Your task to perform on an android device: Open Wikipedia Image 0: 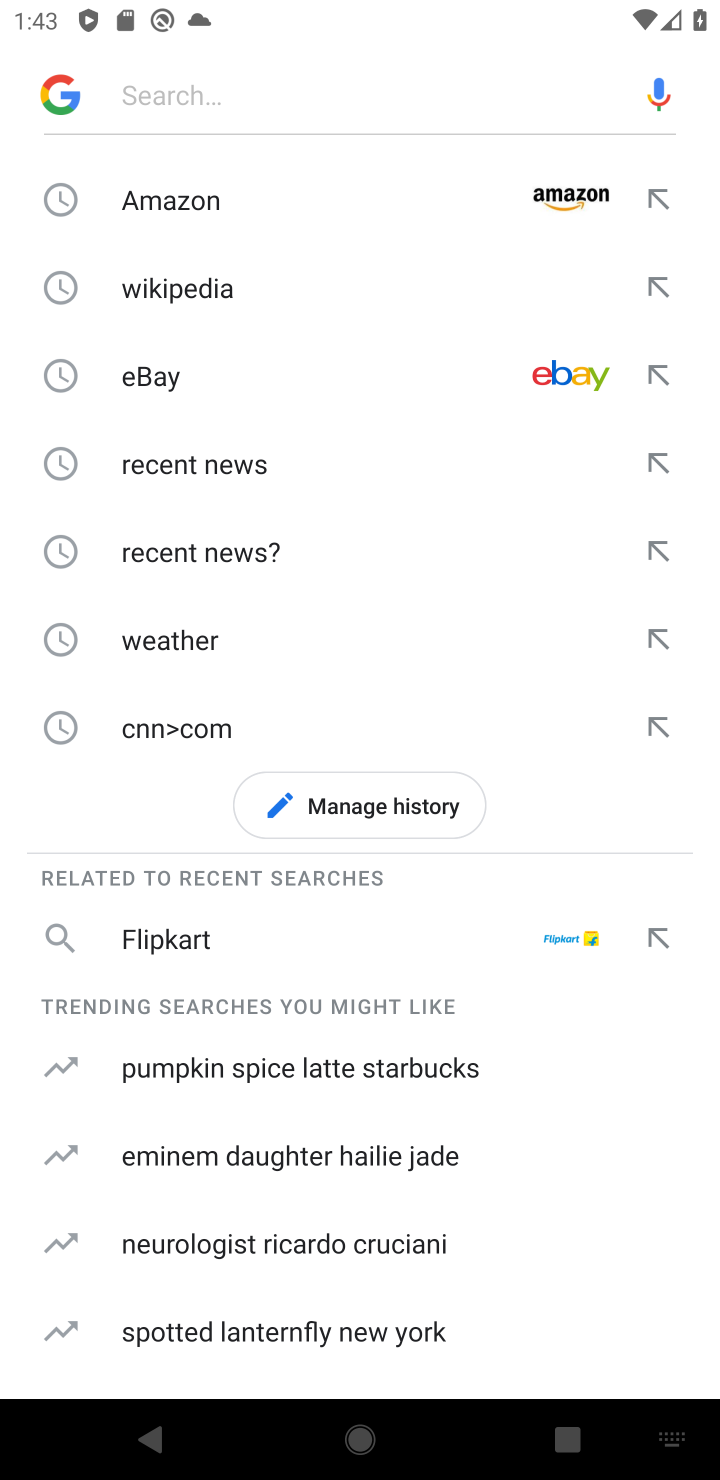
Step 0: press home button
Your task to perform on an android device: Open Wikipedia Image 1: 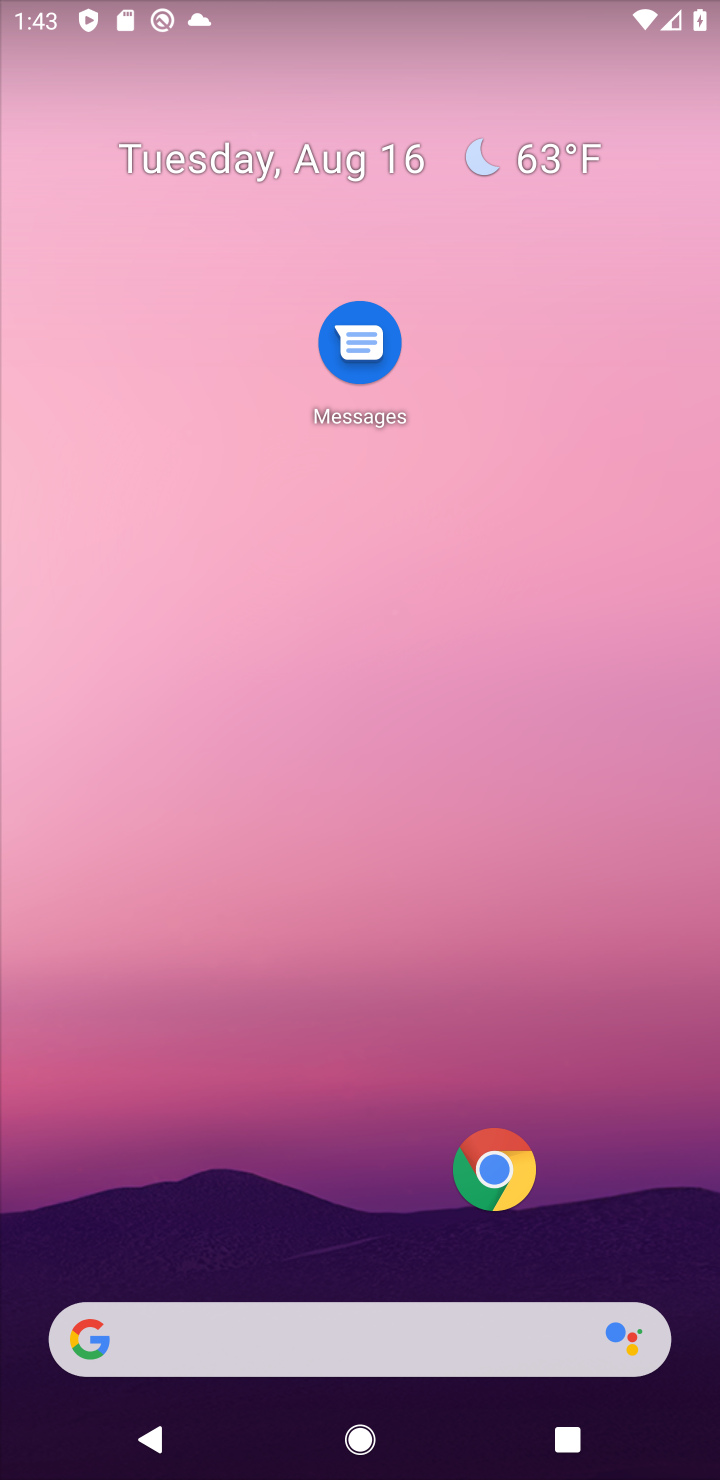
Step 1: click (188, 1335)
Your task to perform on an android device: Open Wikipedia Image 2: 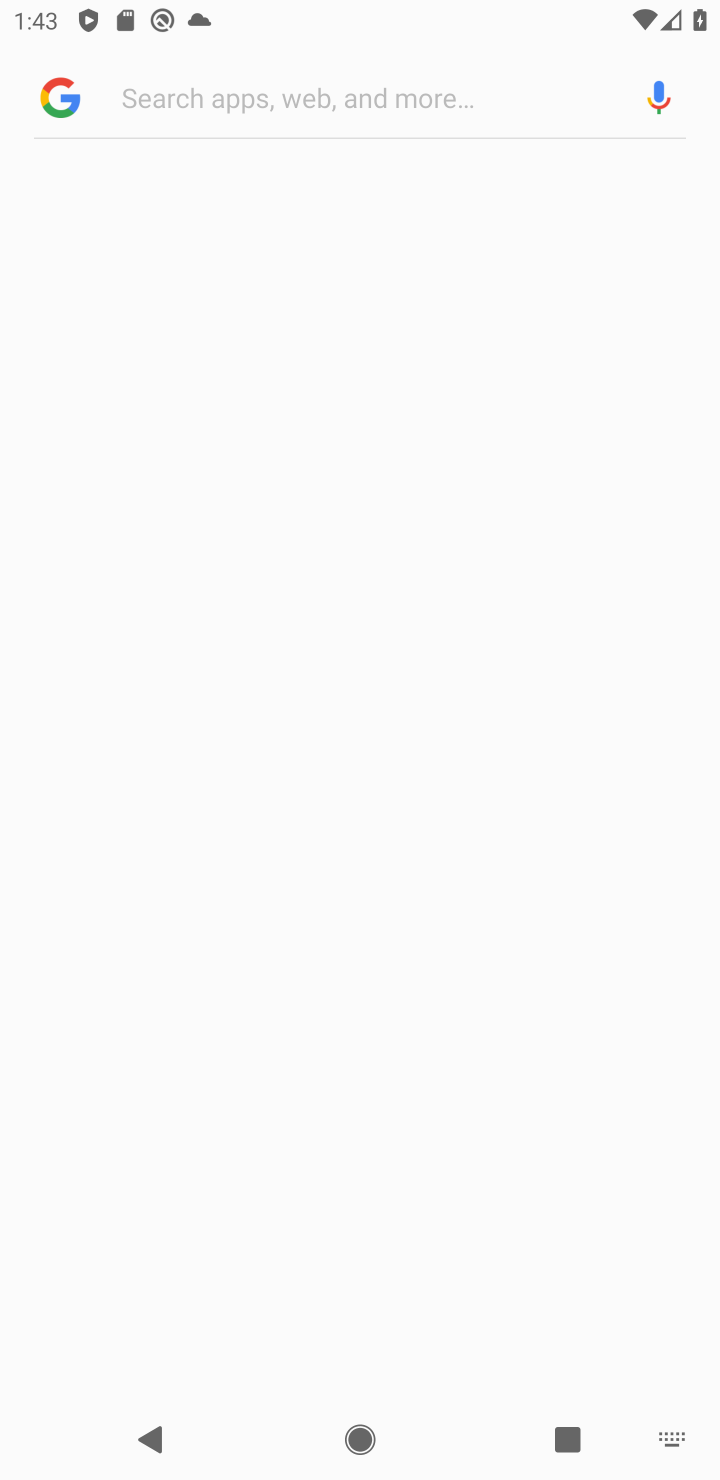
Step 2: click (188, 1335)
Your task to perform on an android device: Open Wikipedia Image 3: 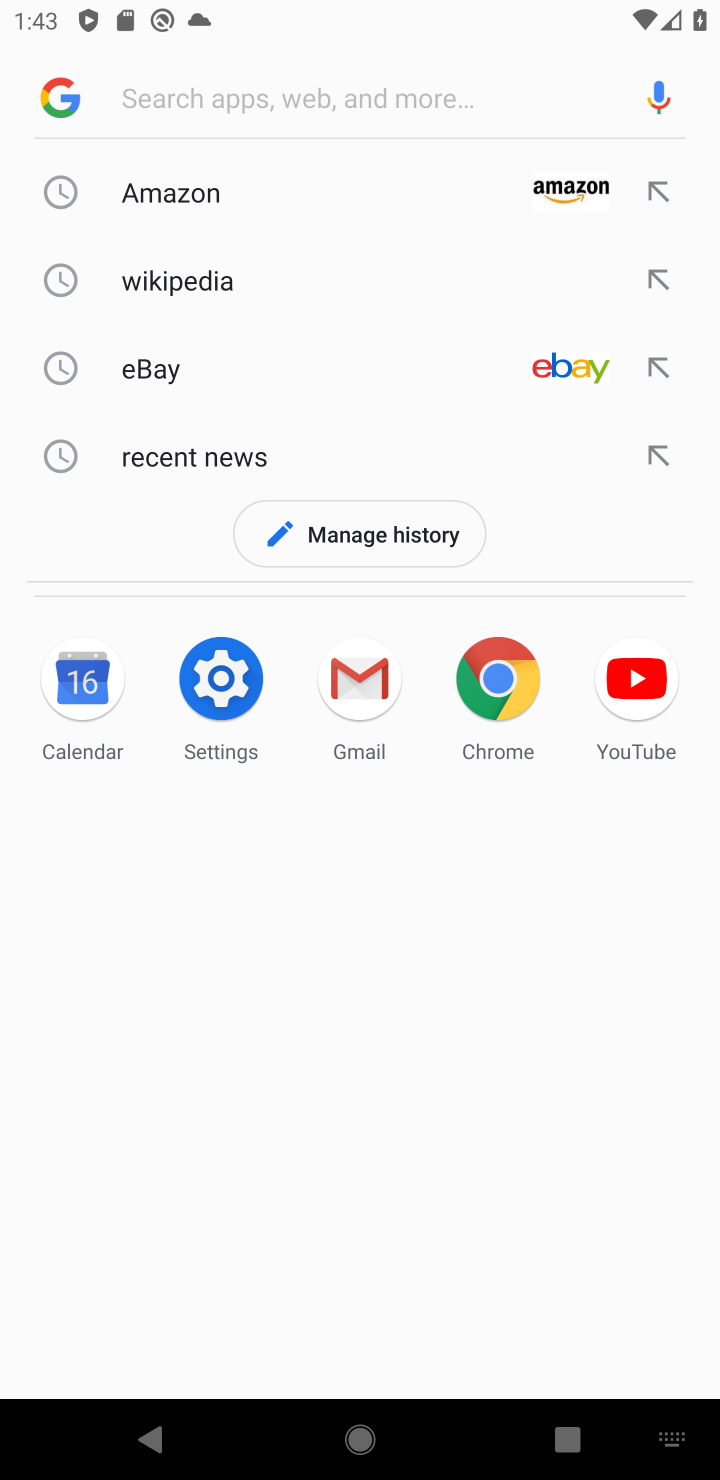
Step 3: type "Wikipedia"
Your task to perform on an android device: Open Wikipedia Image 4: 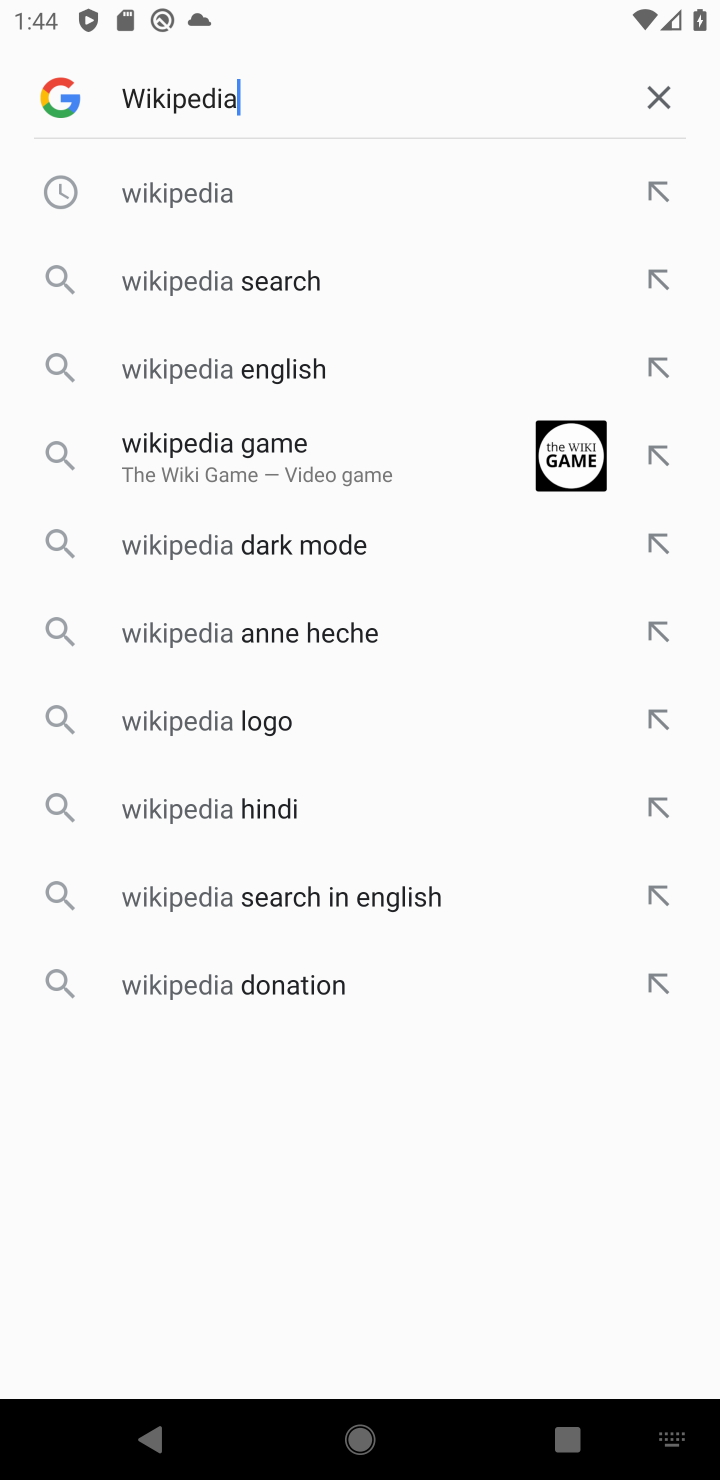
Step 4: click (179, 198)
Your task to perform on an android device: Open Wikipedia Image 5: 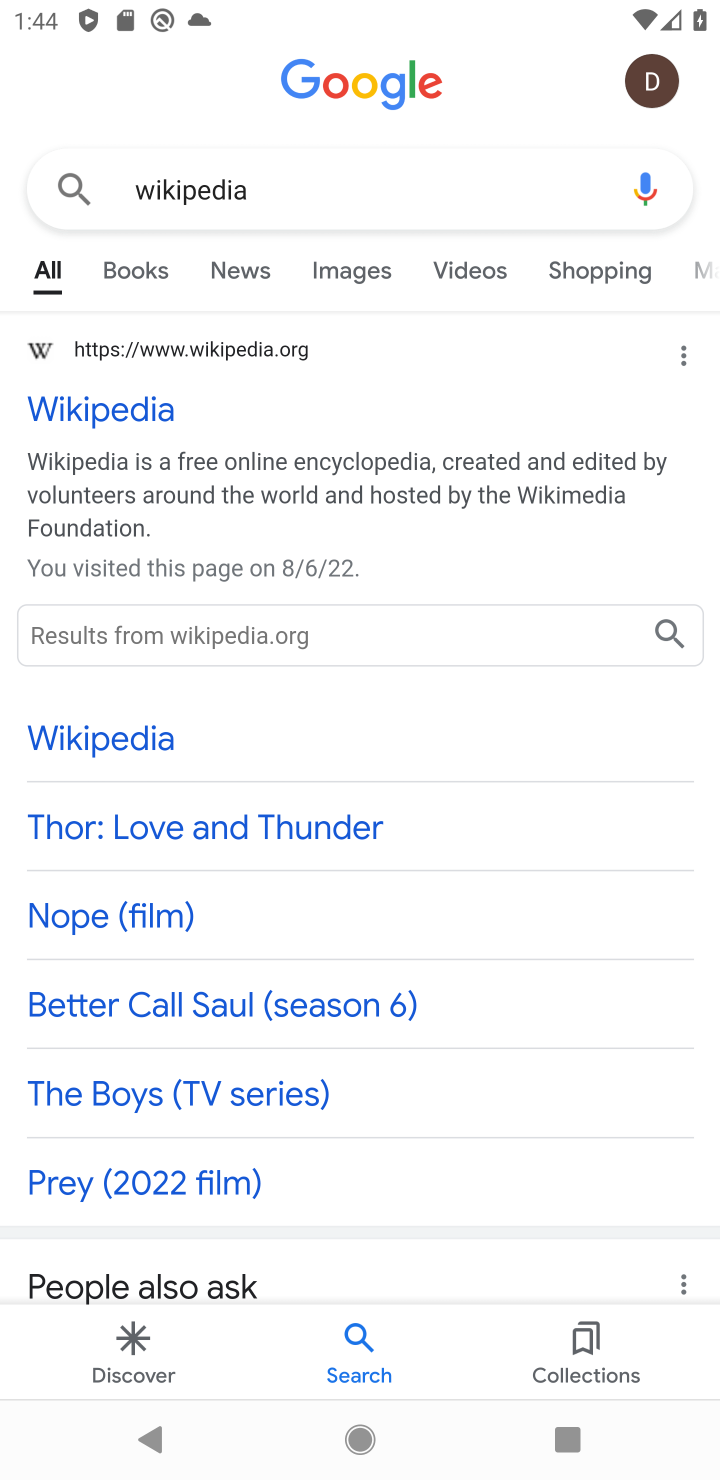
Step 5: task complete